Your task to perform on an android device: Open calendar and show me the second week of next month Image 0: 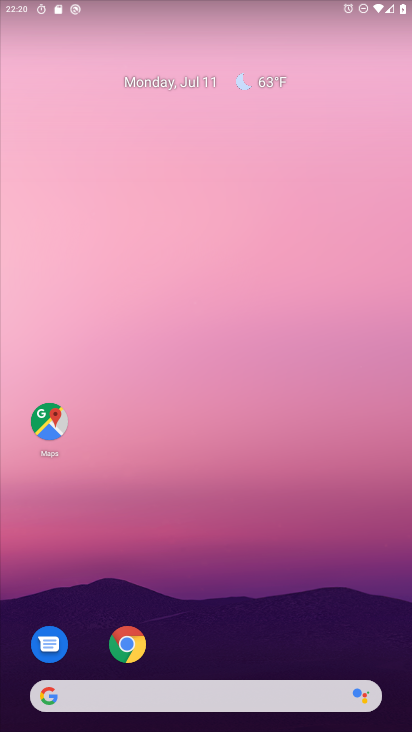
Step 0: drag from (290, 588) to (208, 97)
Your task to perform on an android device: Open calendar and show me the second week of next month Image 1: 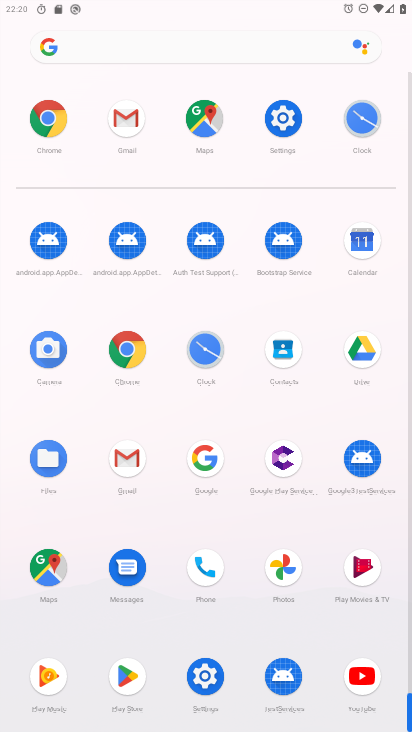
Step 1: click (367, 237)
Your task to perform on an android device: Open calendar and show me the second week of next month Image 2: 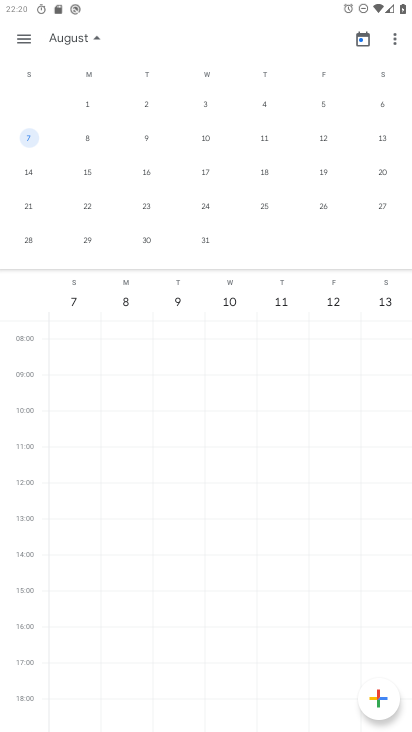
Step 2: task complete